Your task to perform on an android device: toggle wifi Image 0: 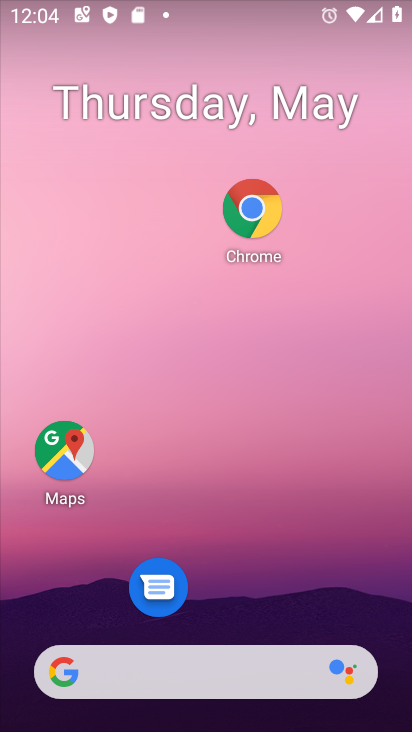
Step 0: drag from (211, 544) to (279, 107)
Your task to perform on an android device: toggle wifi Image 1: 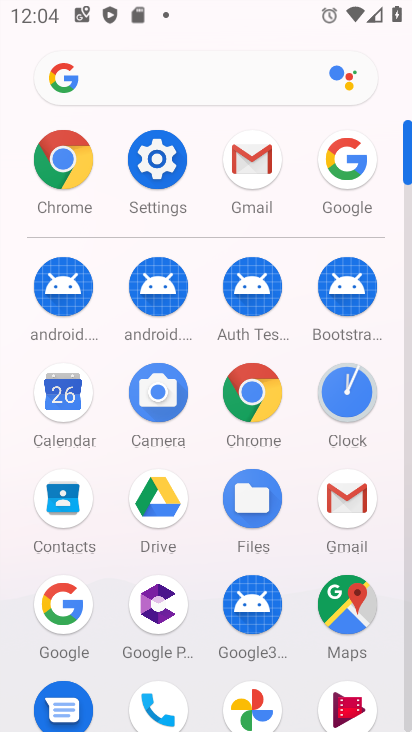
Step 1: click (164, 163)
Your task to perform on an android device: toggle wifi Image 2: 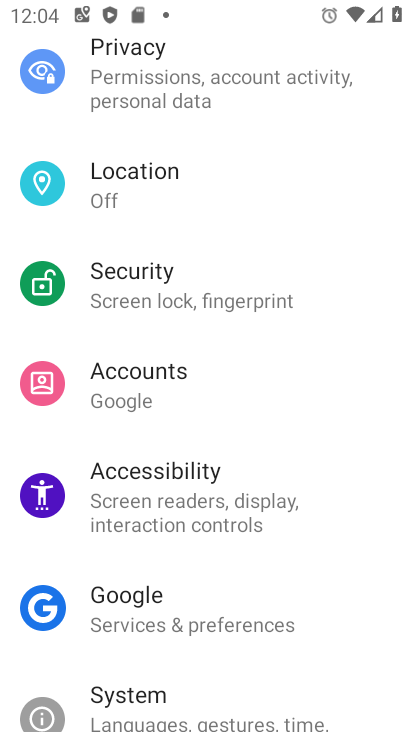
Step 2: drag from (166, 162) to (167, 452)
Your task to perform on an android device: toggle wifi Image 3: 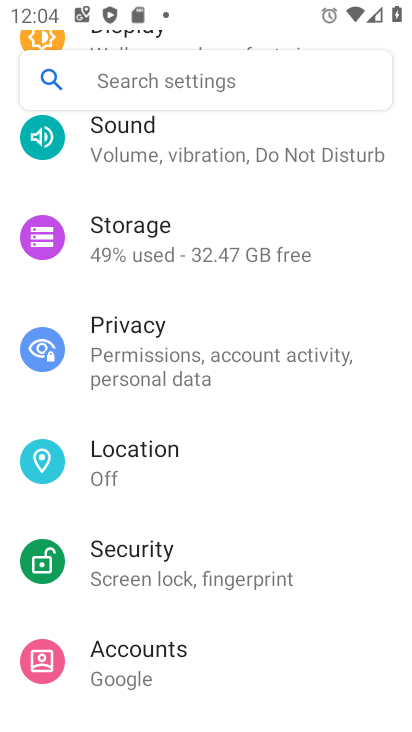
Step 3: drag from (233, 146) to (231, 588)
Your task to perform on an android device: toggle wifi Image 4: 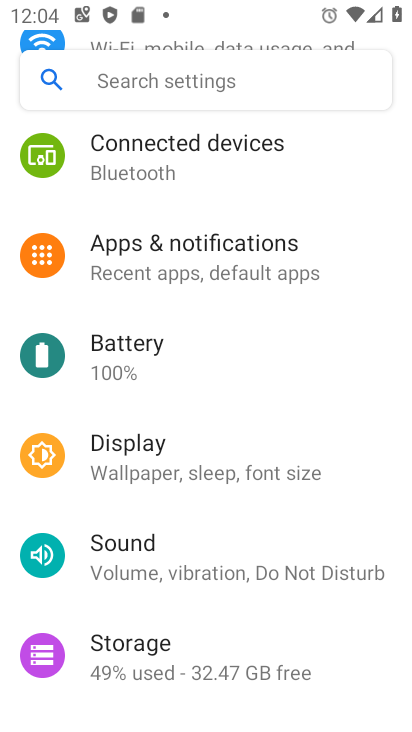
Step 4: drag from (238, 263) to (207, 581)
Your task to perform on an android device: toggle wifi Image 5: 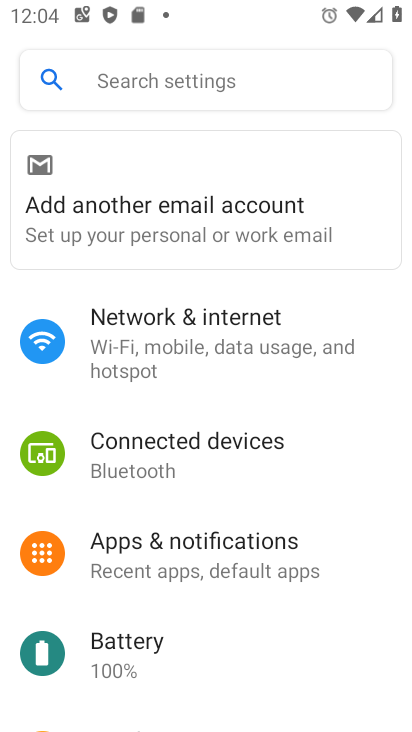
Step 5: click (184, 336)
Your task to perform on an android device: toggle wifi Image 6: 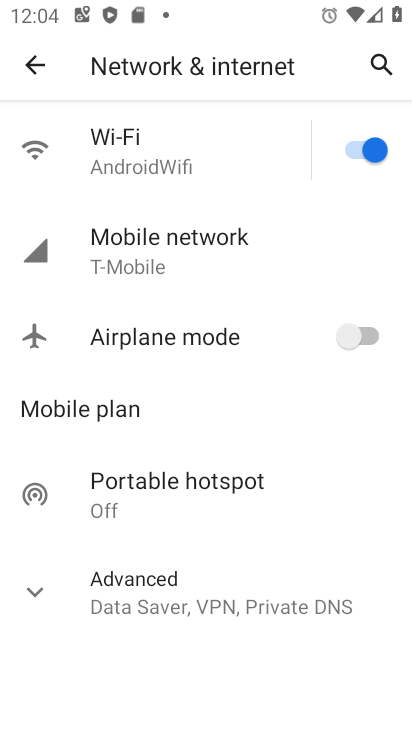
Step 6: click (352, 156)
Your task to perform on an android device: toggle wifi Image 7: 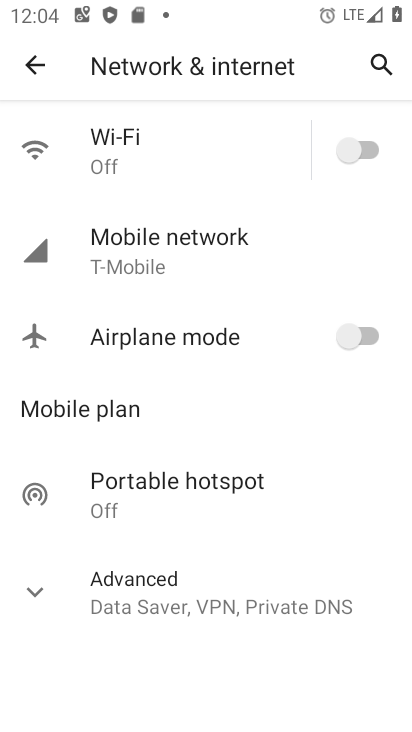
Step 7: task complete